Your task to perform on an android device: Is it going to rain tomorrow? Image 0: 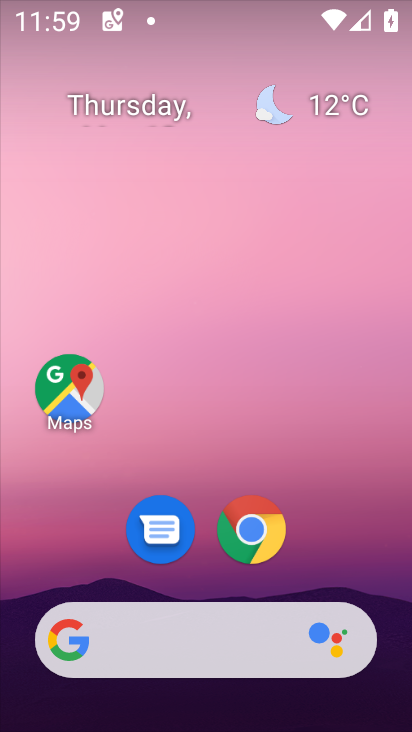
Step 0: drag from (333, 494) to (333, 204)
Your task to perform on an android device: Is it going to rain tomorrow? Image 1: 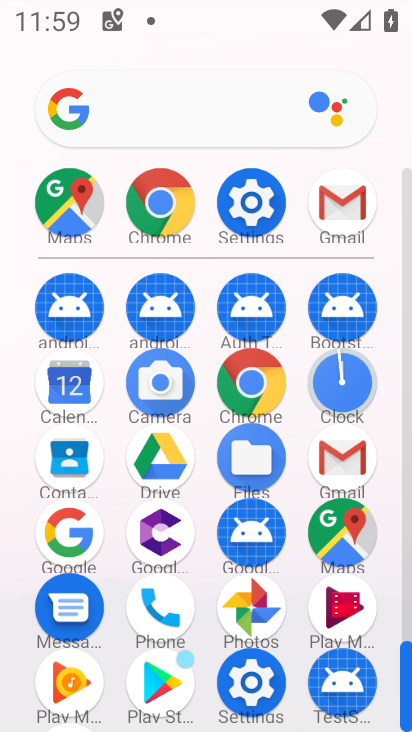
Step 1: click (159, 211)
Your task to perform on an android device: Is it going to rain tomorrow? Image 2: 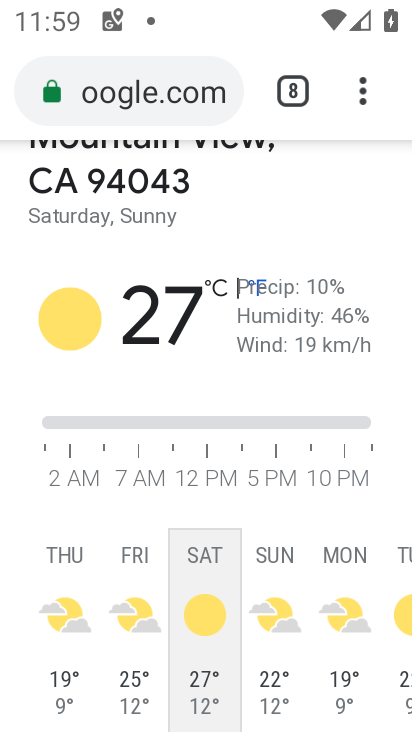
Step 2: click (340, 89)
Your task to perform on an android device: Is it going to rain tomorrow? Image 3: 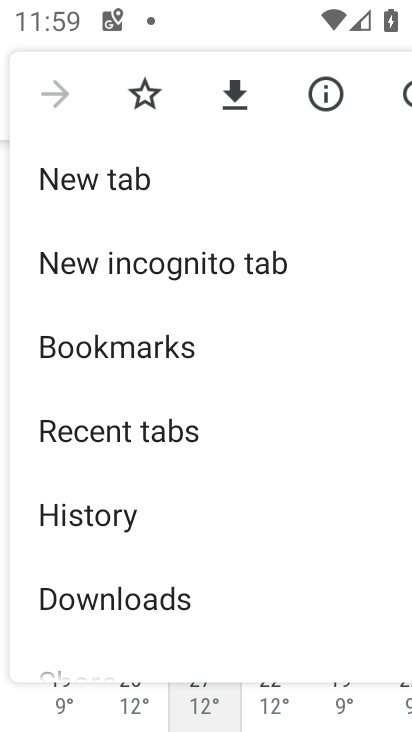
Step 3: task complete